Your task to perform on an android device: Go to wifi settings Image 0: 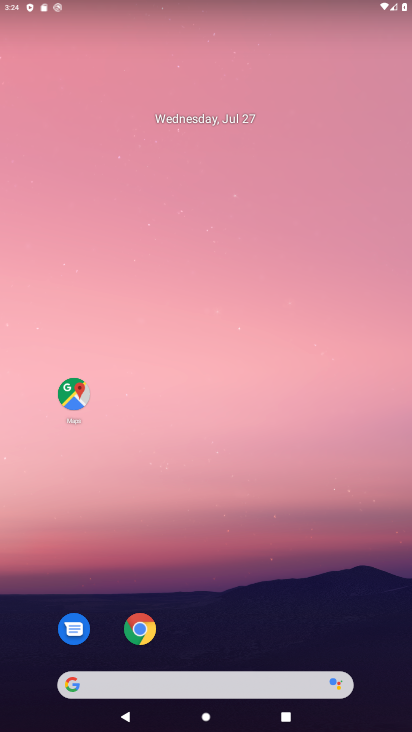
Step 0: click (322, 101)
Your task to perform on an android device: Go to wifi settings Image 1: 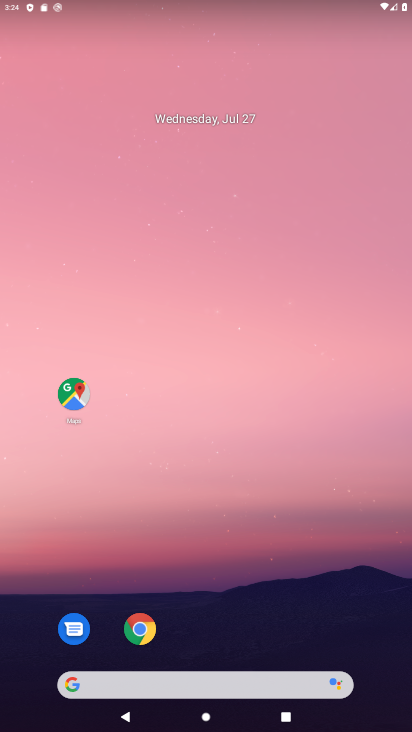
Step 1: drag from (321, 462) to (355, 29)
Your task to perform on an android device: Go to wifi settings Image 2: 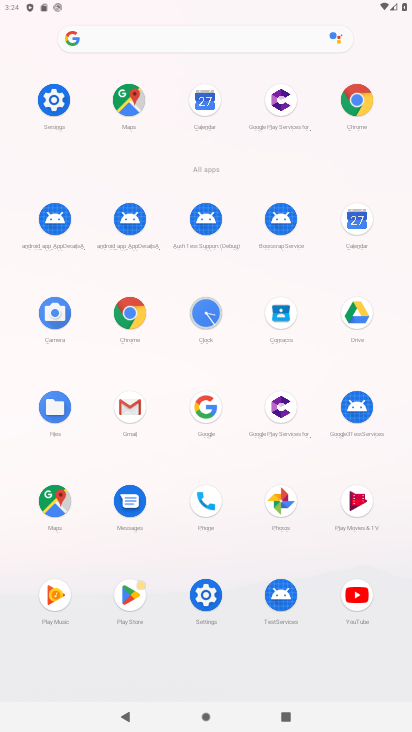
Step 2: click (42, 107)
Your task to perform on an android device: Go to wifi settings Image 3: 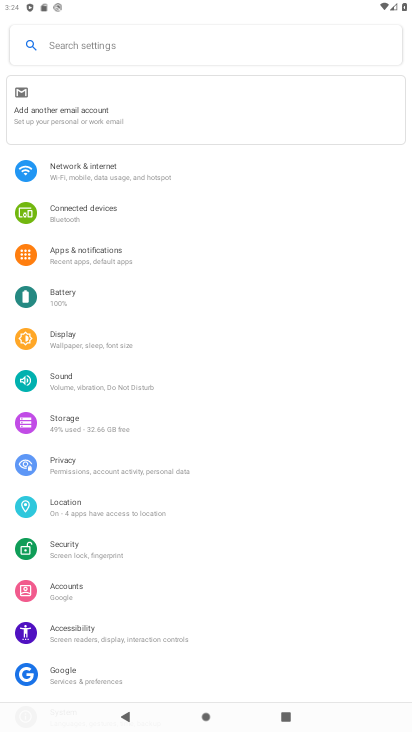
Step 3: click (74, 174)
Your task to perform on an android device: Go to wifi settings Image 4: 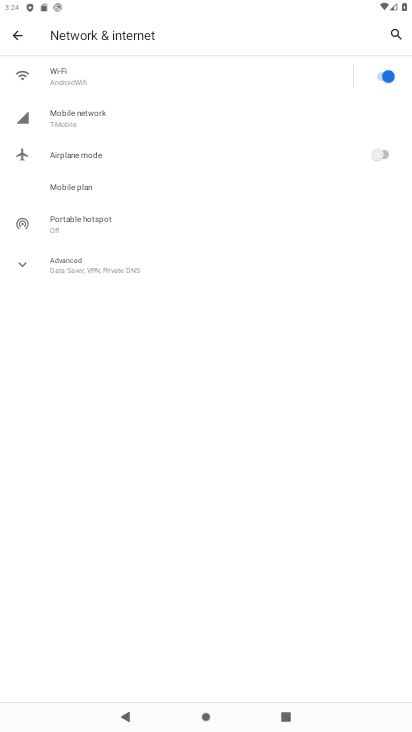
Step 4: click (191, 79)
Your task to perform on an android device: Go to wifi settings Image 5: 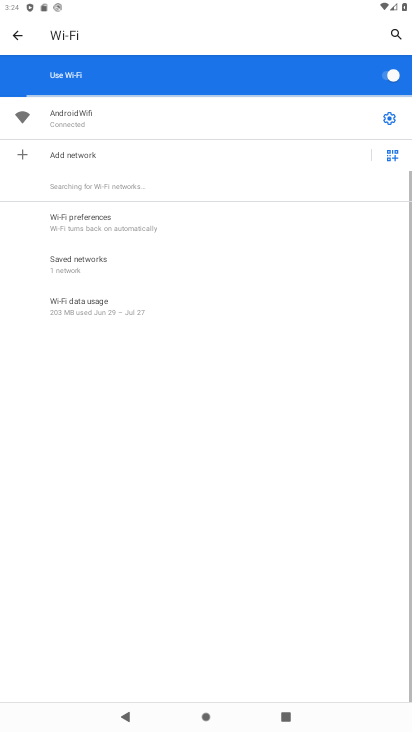
Step 5: click (397, 120)
Your task to perform on an android device: Go to wifi settings Image 6: 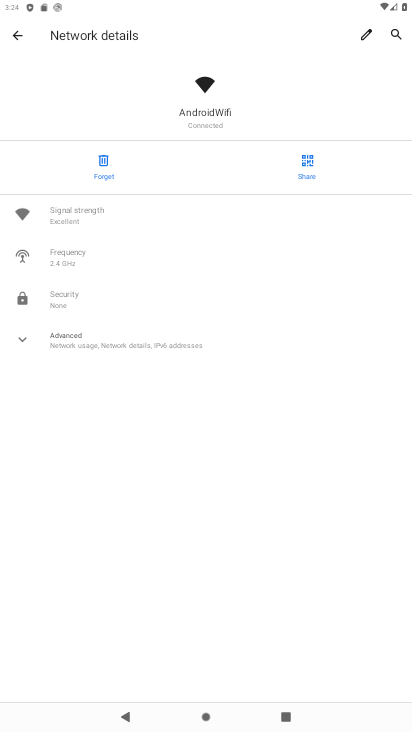
Step 6: task complete